Your task to perform on an android device: turn off translation in the chrome app Image 0: 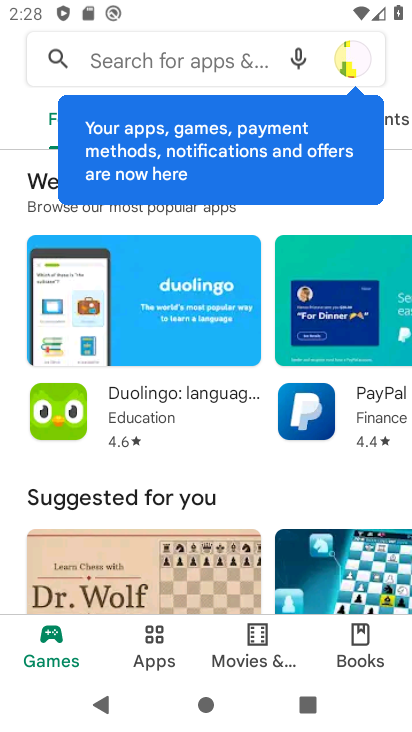
Step 0: press back button
Your task to perform on an android device: turn off translation in the chrome app Image 1: 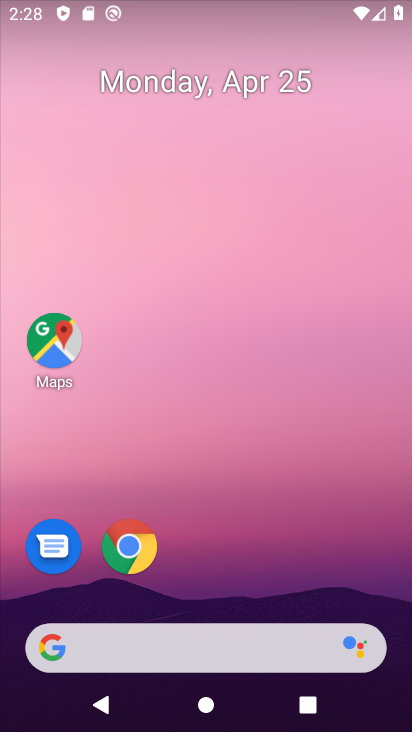
Step 1: click (147, 562)
Your task to perform on an android device: turn off translation in the chrome app Image 2: 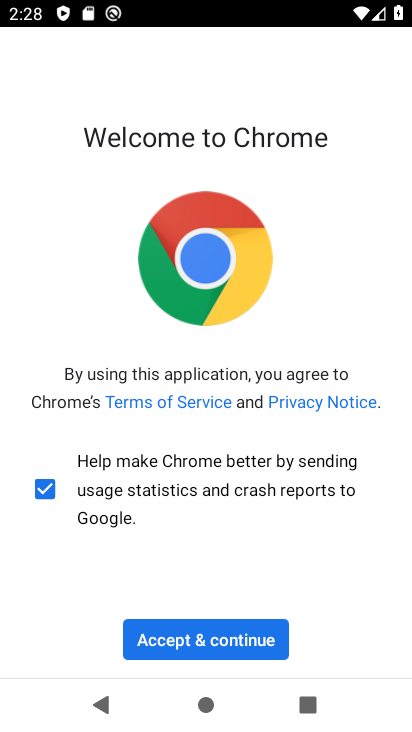
Step 2: click (232, 646)
Your task to perform on an android device: turn off translation in the chrome app Image 3: 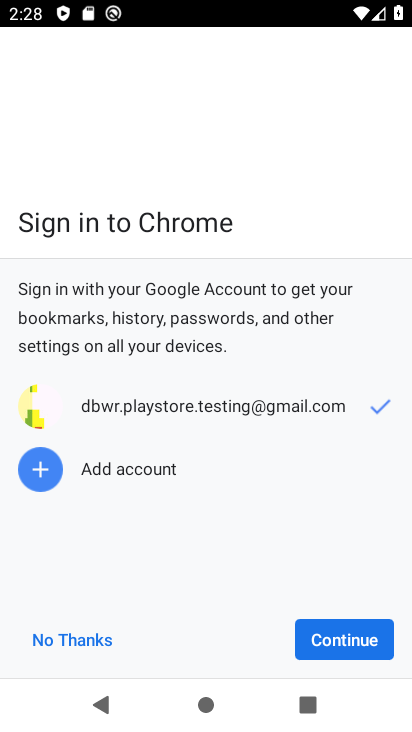
Step 3: click (324, 642)
Your task to perform on an android device: turn off translation in the chrome app Image 4: 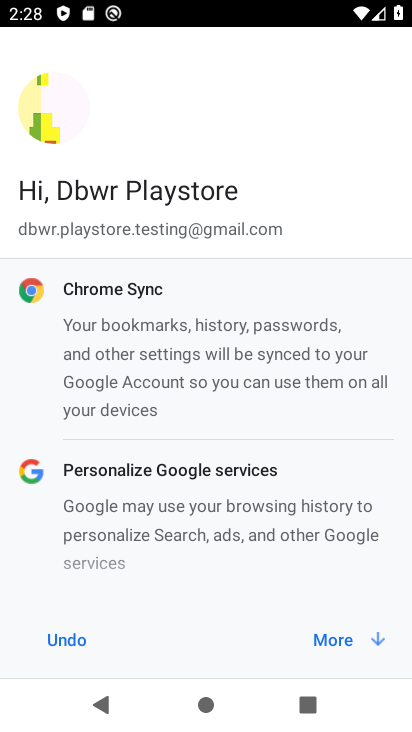
Step 4: click (355, 638)
Your task to perform on an android device: turn off translation in the chrome app Image 5: 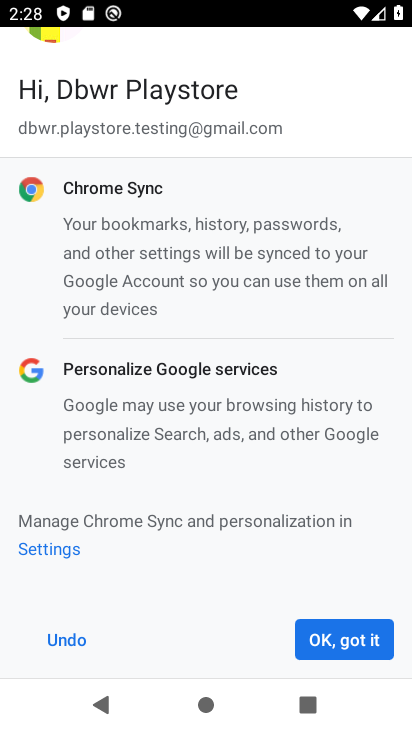
Step 5: click (354, 645)
Your task to perform on an android device: turn off translation in the chrome app Image 6: 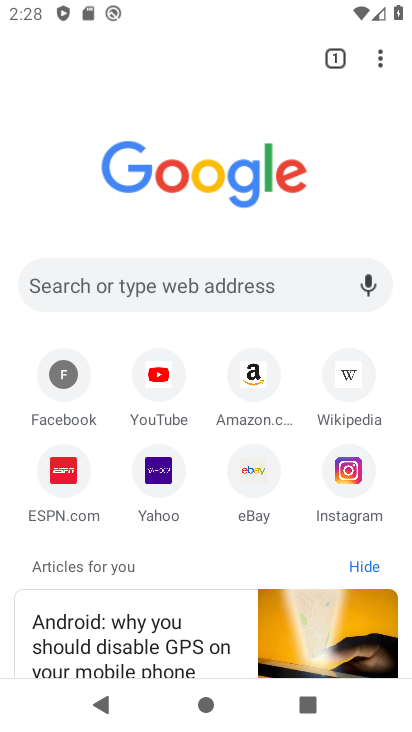
Step 6: drag from (385, 59) to (265, 494)
Your task to perform on an android device: turn off translation in the chrome app Image 7: 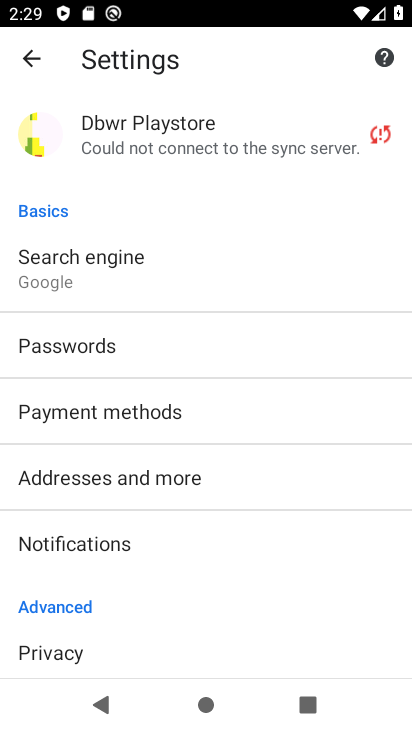
Step 7: drag from (176, 578) to (214, 237)
Your task to perform on an android device: turn off translation in the chrome app Image 8: 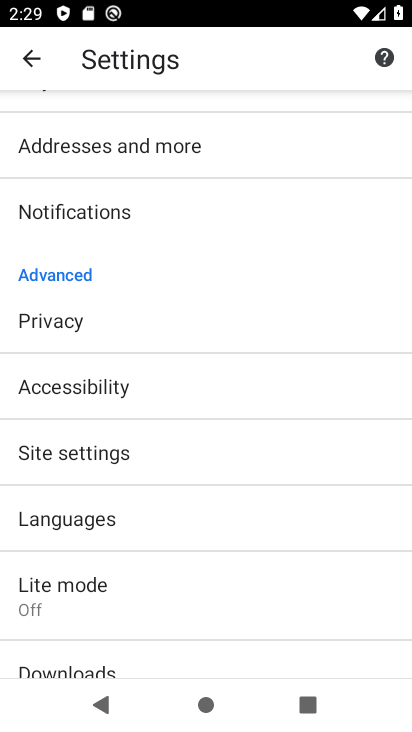
Step 8: click (152, 521)
Your task to perform on an android device: turn off translation in the chrome app Image 9: 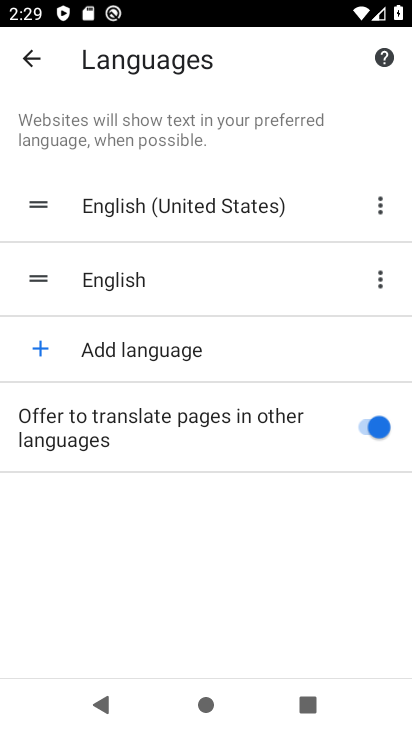
Step 9: click (370, 429)
Your task to perform on an android device: turn off translation in the chrome app Image 10: 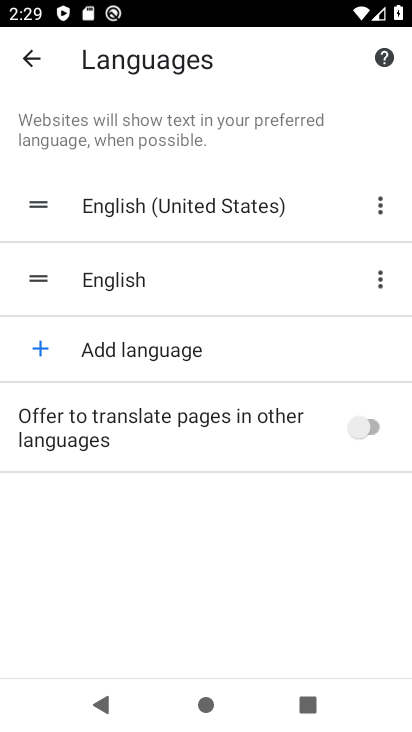
Step 10: task complete